Your task to perform on an android device: How do I get to the nearest Macy's? Image 0: 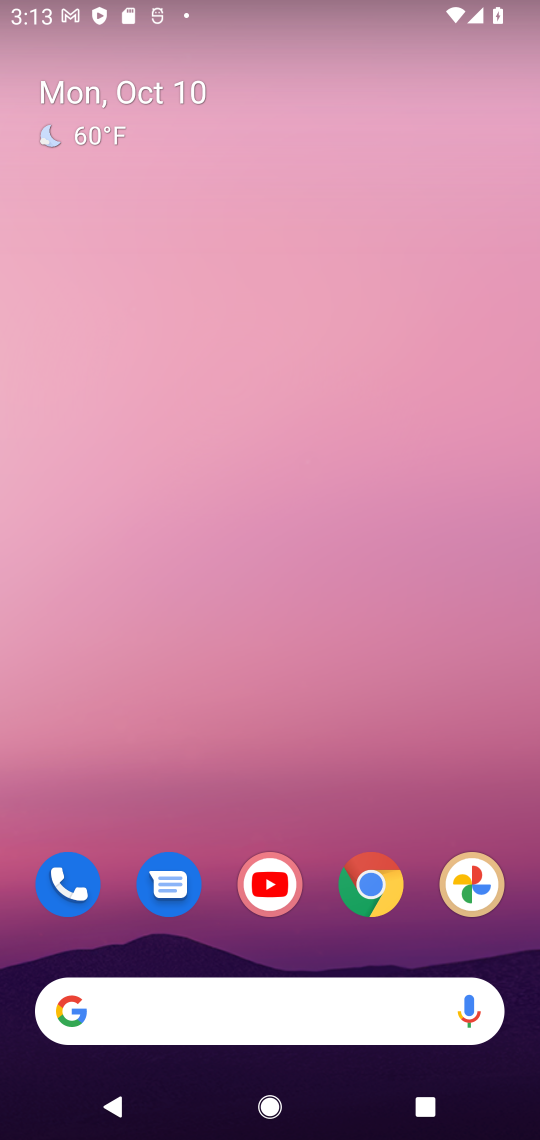
Step 0: click (387, 886)
Your task to perform on an android device: How do I get to the nearest Macy's? Image 1: 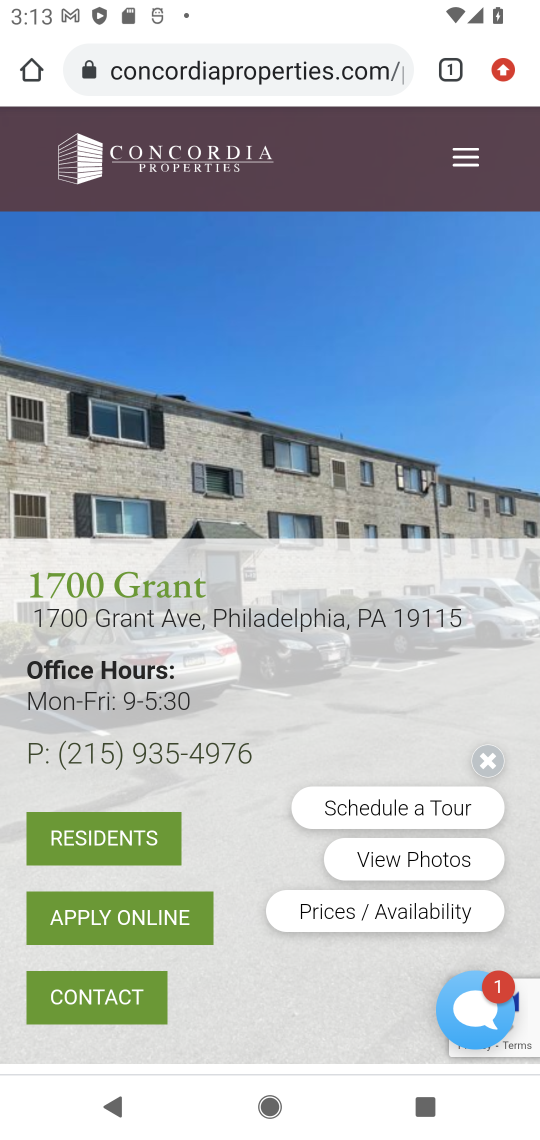
Step 1: click (239, 79)
Your task to perform on an android device: How do I get to the nearest Macy's? Image 2: 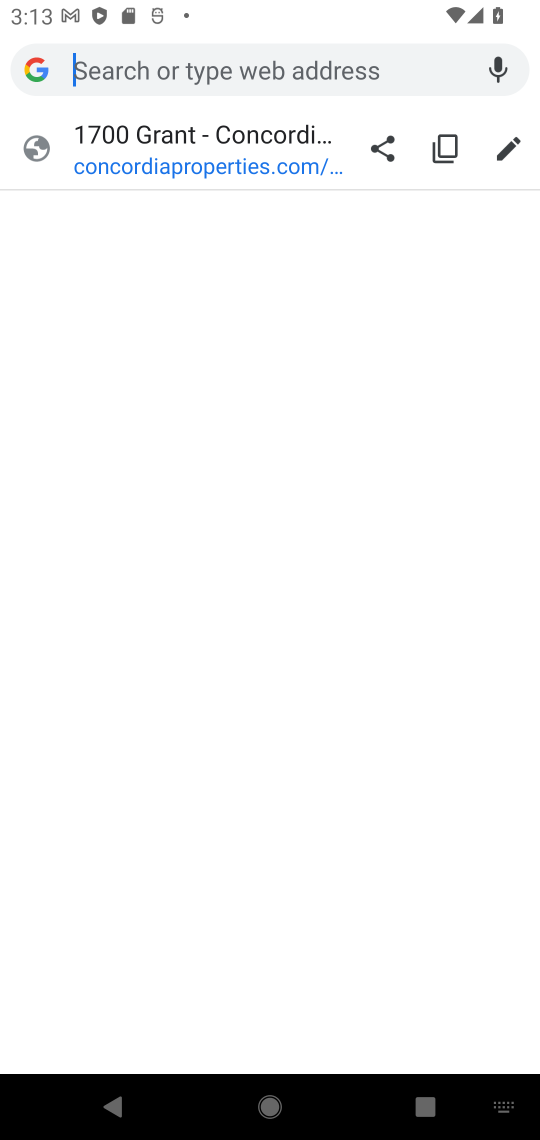
Step 2: type "How do I get to the nearest Macy's"
Your task to perform on an android device: How do I get to the nearest Macy's? Image 3: 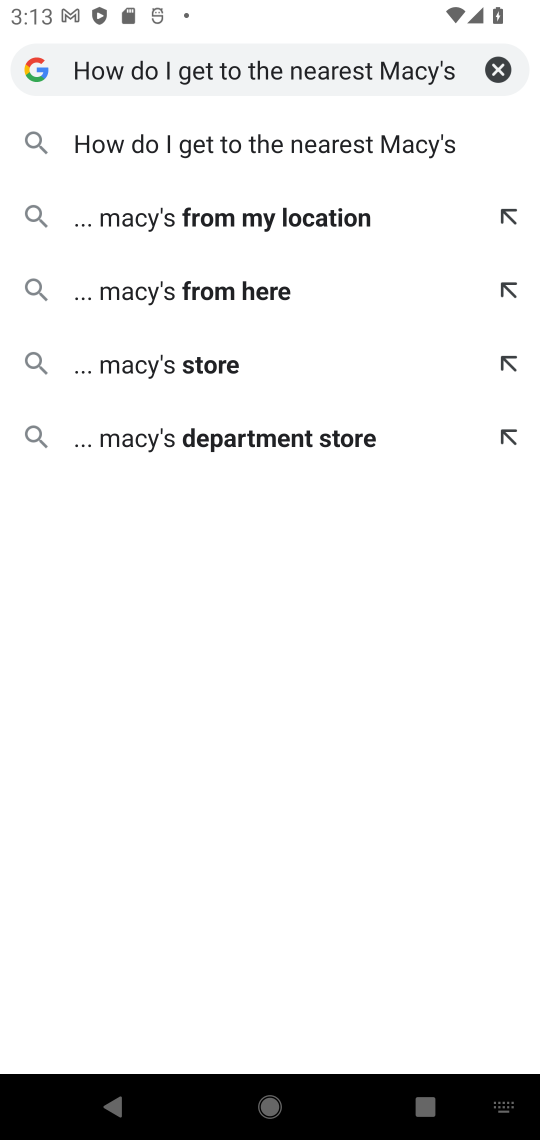
Step 3: click (276, 148)
Your task to perform on an android device: How do I get to the nearest Macy's? Image 4: 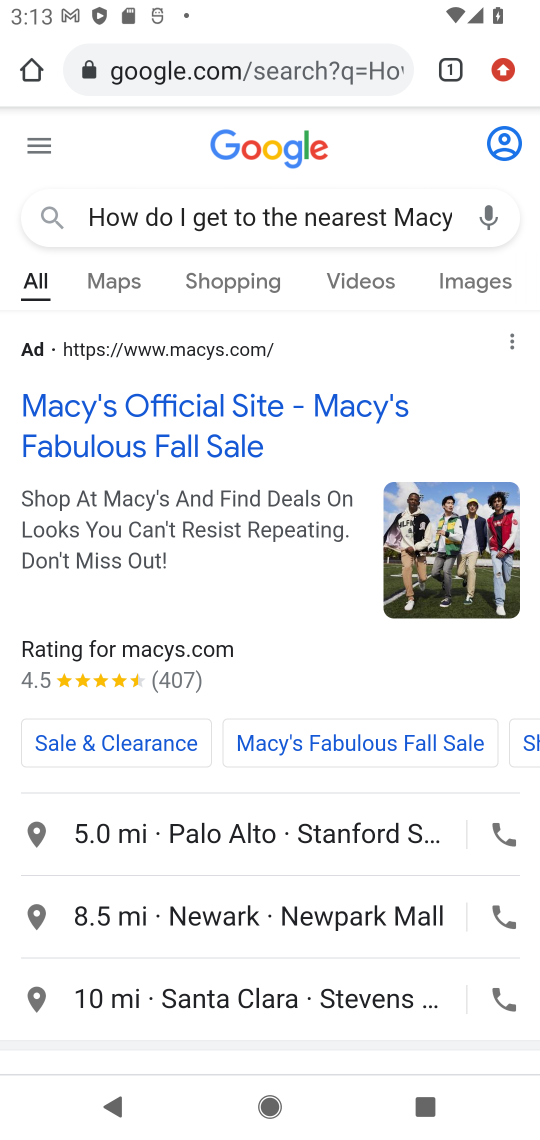
Step 4: drag from (366, 707) to (301, 234)
Your task to perform on an android device: How do I get to the nearest Macy's? Image 5: 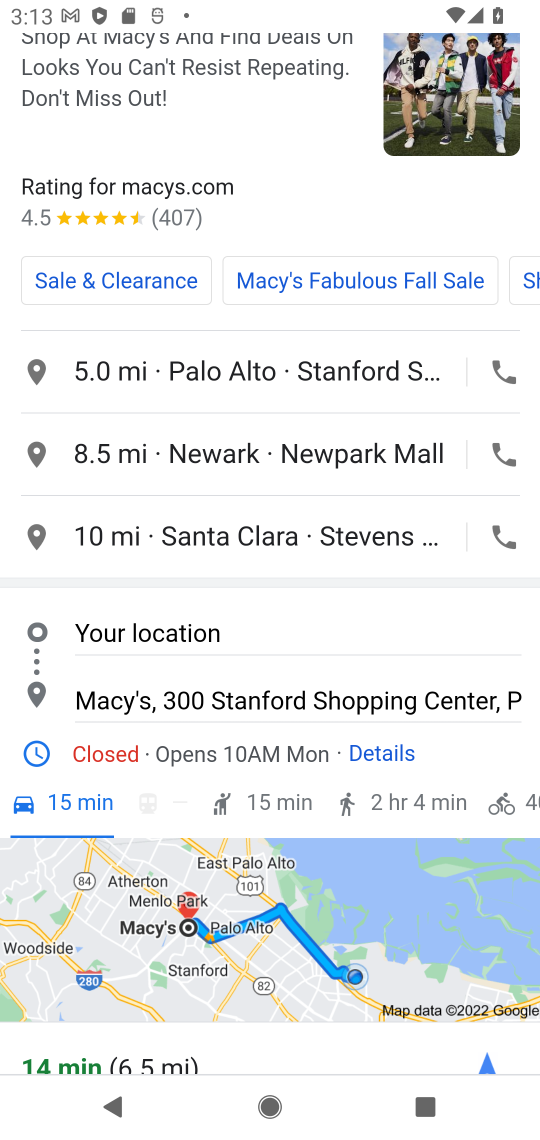
Step 5: drag from (269, 690) to (253, 168)
Your task to perform on an android device: How do I get to the nearest Macy's? Image 6: 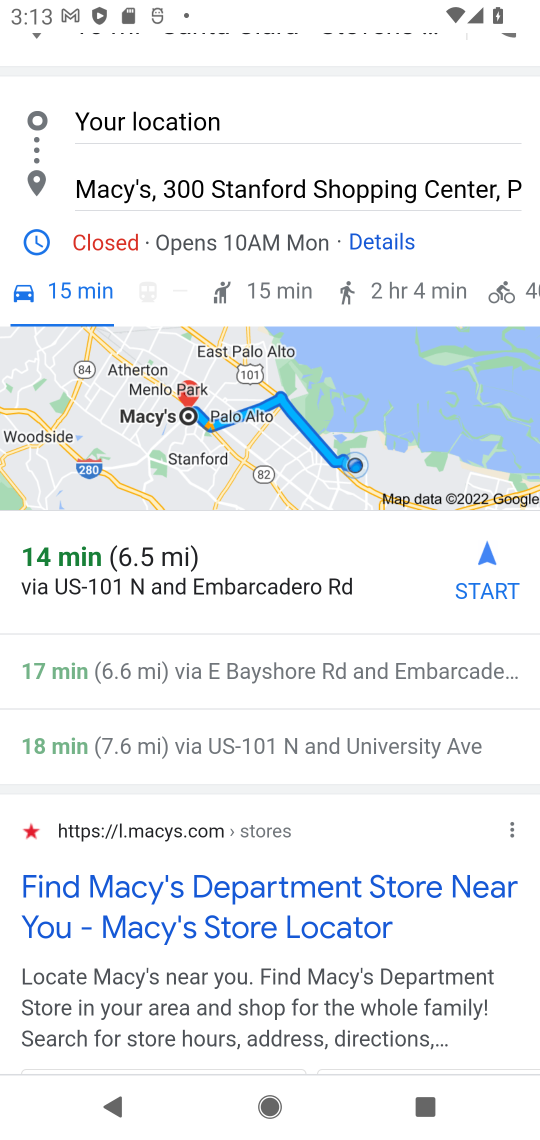
Step 6: click (472, 577)
Your task to perform on an android device: How do I get to the nearest Macy's? Image 7: 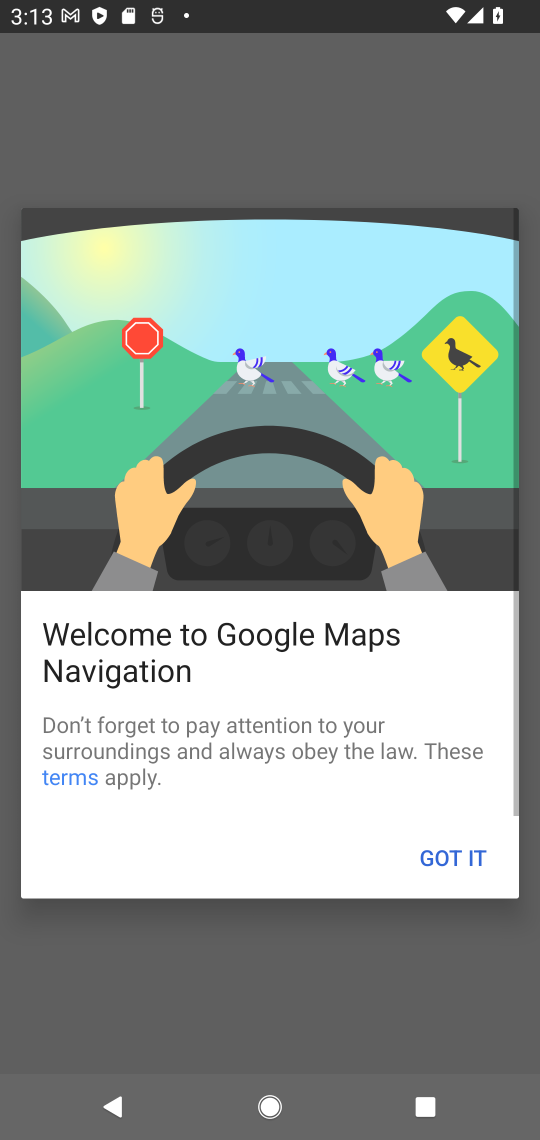
Step 7: click (454, 856)
Your task to perform on an android device: How do I get to the nearest Macy's? Image 8: 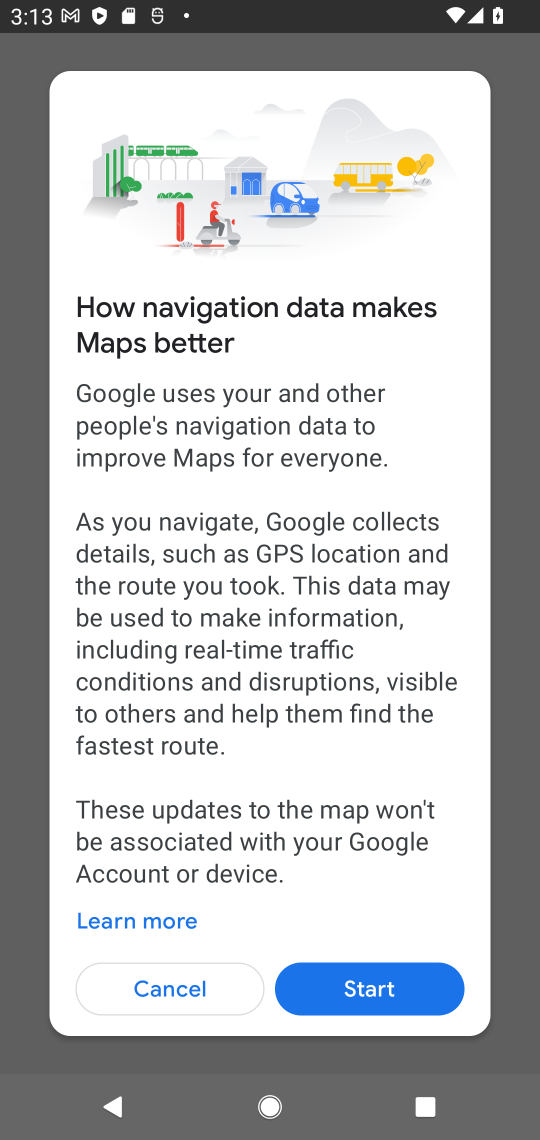
Step 8: click (186, 998)
Your task to perform on an android device: How do I get to the nearest Macy's? Image 9: 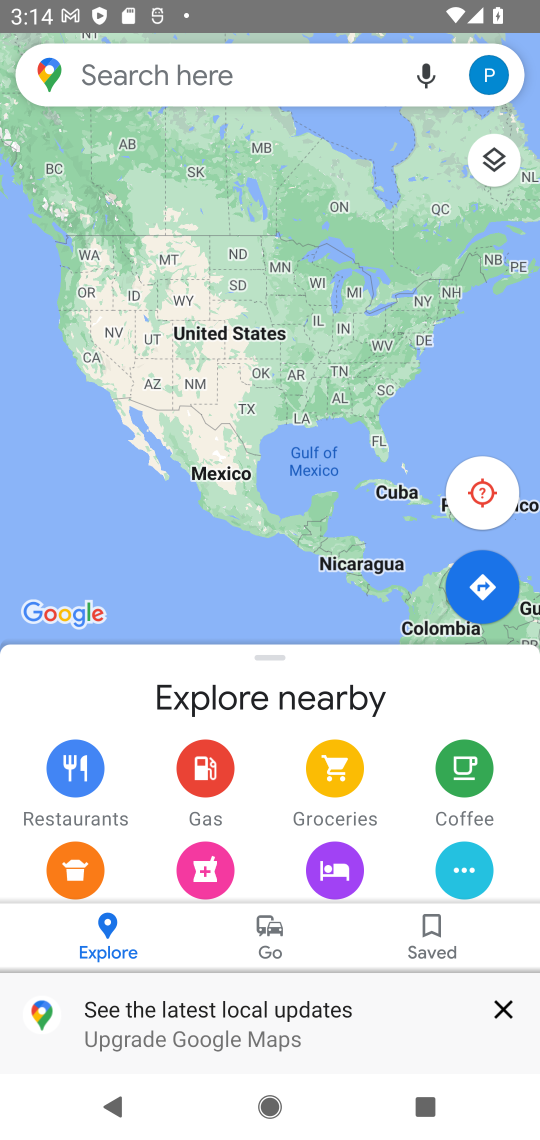
Step 9: task complete